Your task to perform on an android device: toggle data saver in the chrome app Image 0: 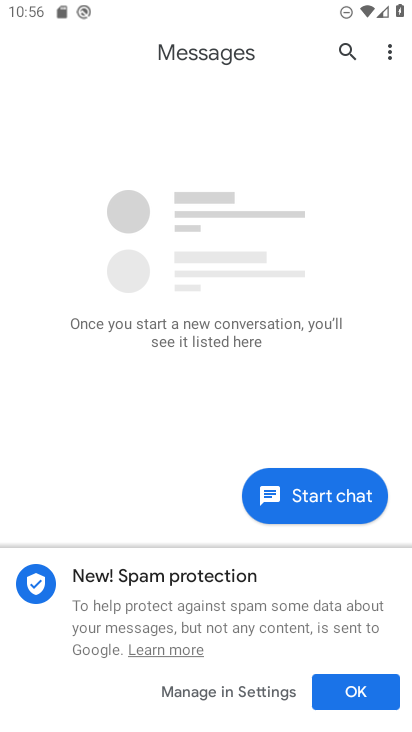
Step 0: press home button
Your task to perform on an android device: toggle data saver in the chrome app Image 1: 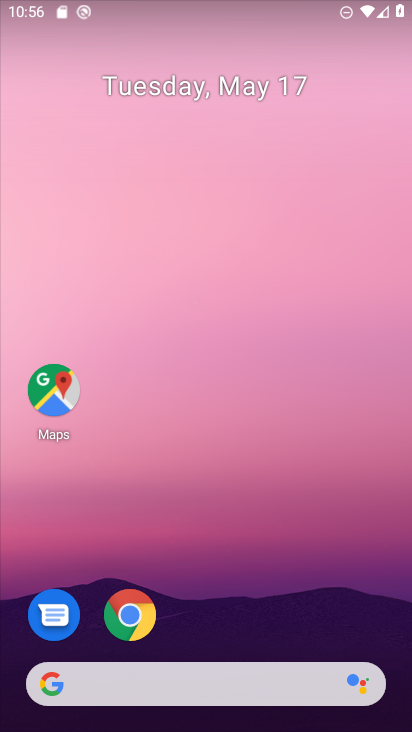
Step 1: click (123, 620)
Your task to perform on an android device: toggle data saver in the chrome app Image 2: 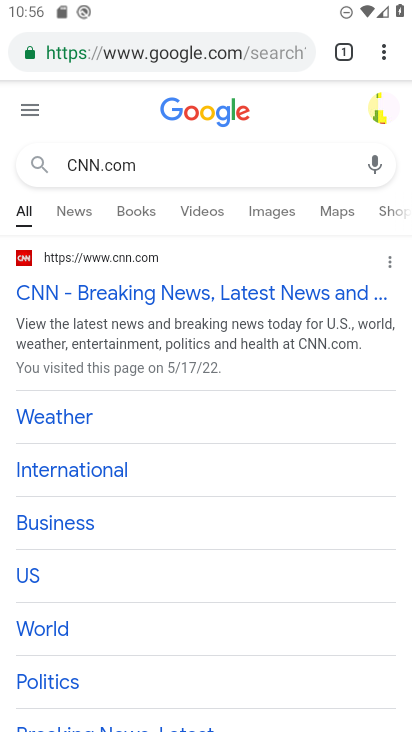
Step 2: click (386, 55)
Your task to perform on an android device: toggle data saver in the chrome app Image 3: 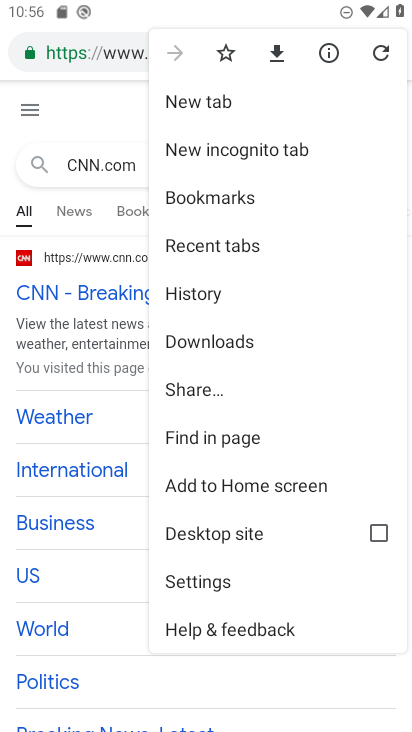
Step 3: click (203, 576)
Your task to perform on an android device: toggle data saver in the chrome app Image 4: 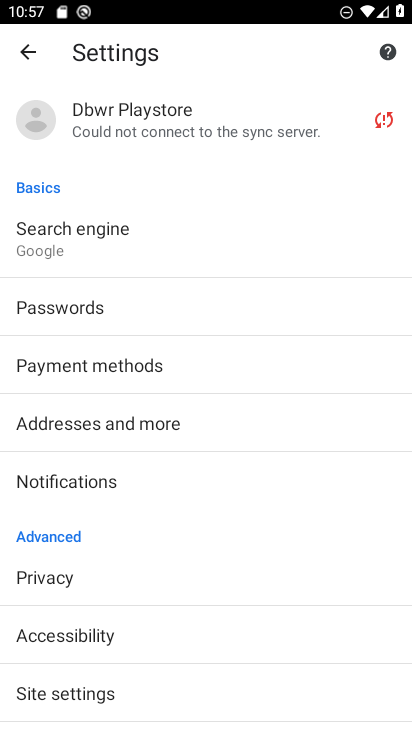
Step 4: drag from (69, 635) to (87, 334)
Your task to perform on an android device: toggle data saver in the chrome app Image 5: 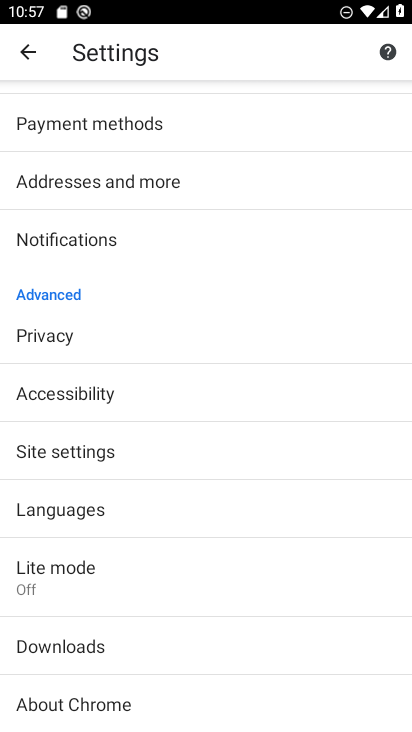
Step 5: click (42, 570)
Your task to perform on an android device: toggle data saver in the chrome app Image 6: 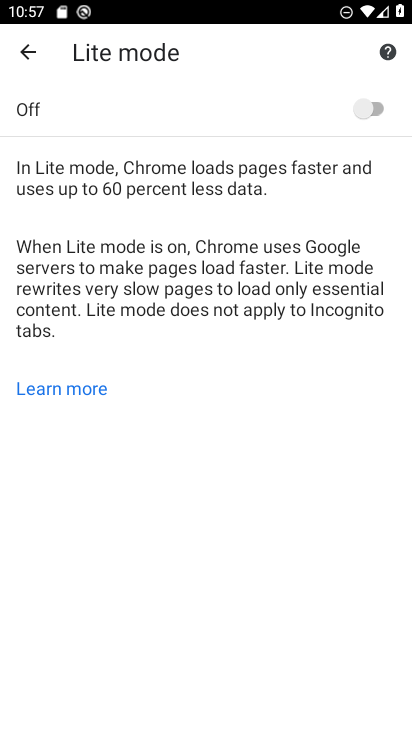
Step 6: click (354, 114)
Your task to perform on an android device: toggle data saver in the chrome app Image 7: 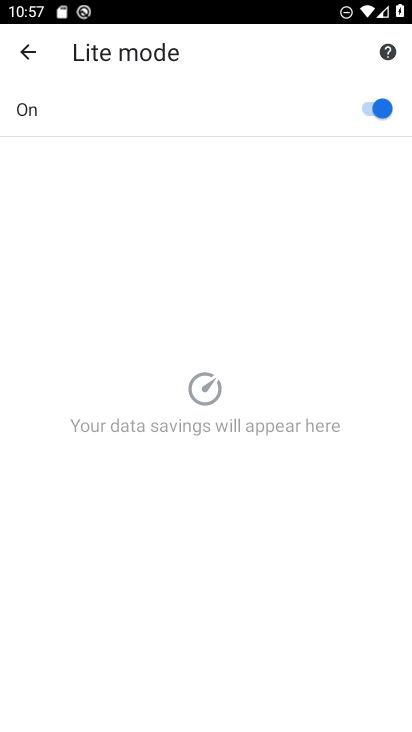
Step 7: task complete